Your task to perform on an android device: stop showing notifications on the lock screen Image 0: 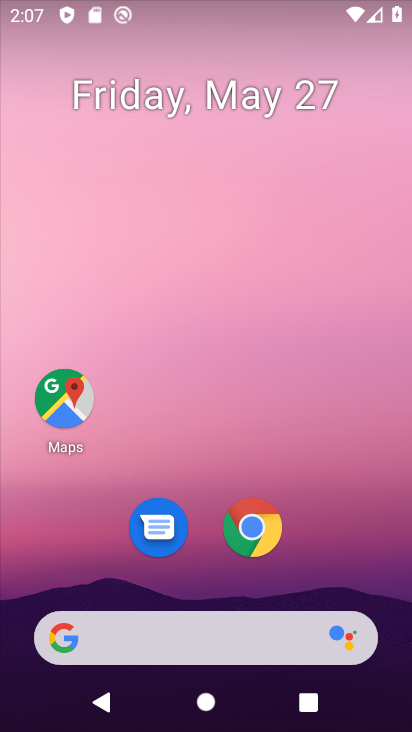
Step 0: press home button
Your task to perform on an android device: stop showing notifications on the lock screen Image 1: 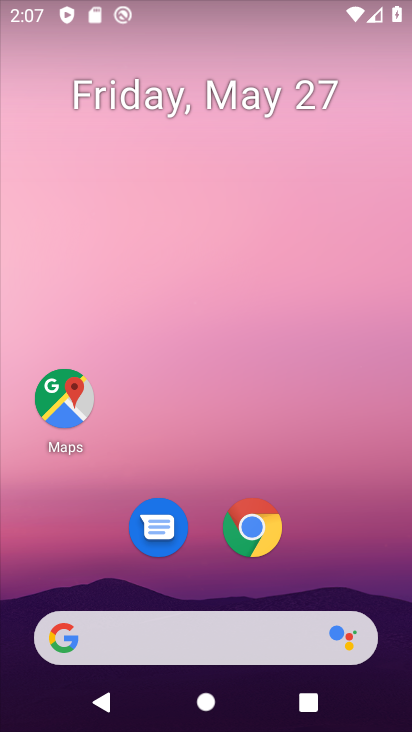
Step 1: drag from (195, 622) to (255, 209)
Your task to perform on an android device: stop showing notifications on the lock screen Image 2: 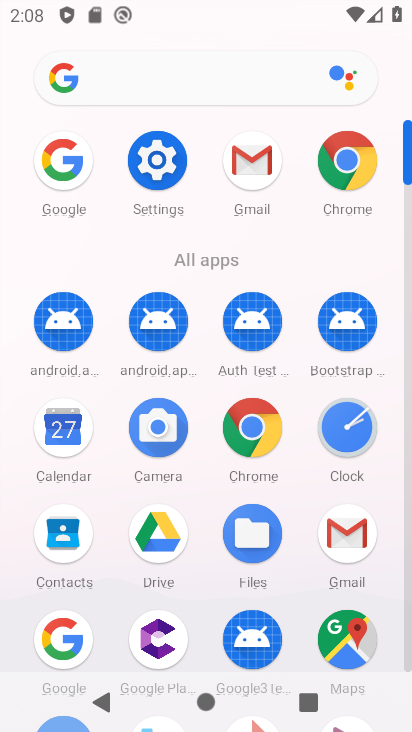
Step 2: click (151, 153)
Your task to perform on an android device: stop showing notifications on the lock screen Image 3: 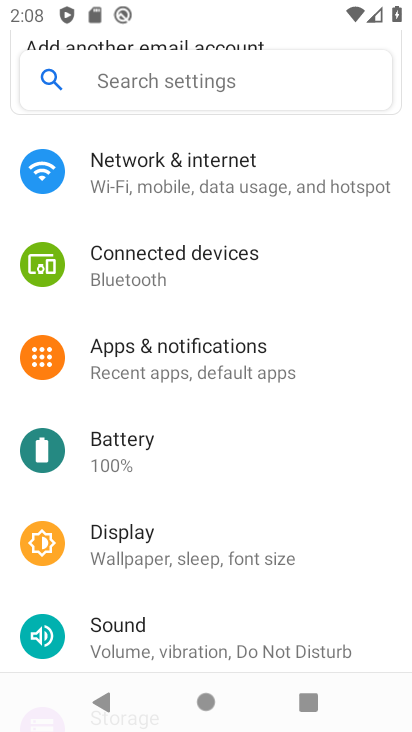
Step 3: drag from (154, 658) to (212, 191)
Your task to perform on an android device: stop showing notifications on the lock screen Image 4: 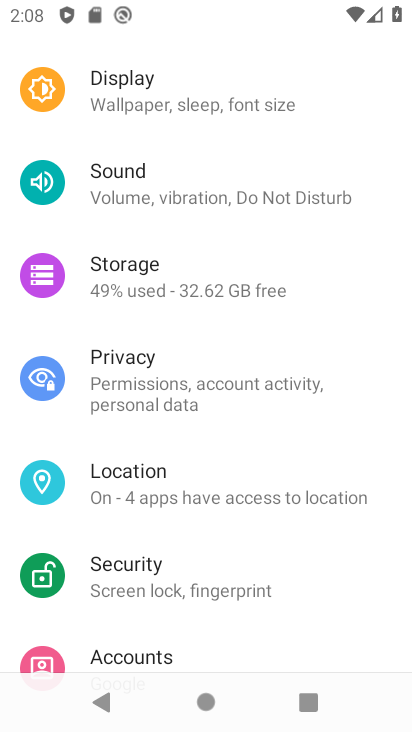
Step 4: click (150, 363)
Your task to perform on an android device: stop showing notifications on the lock screen Image 5: 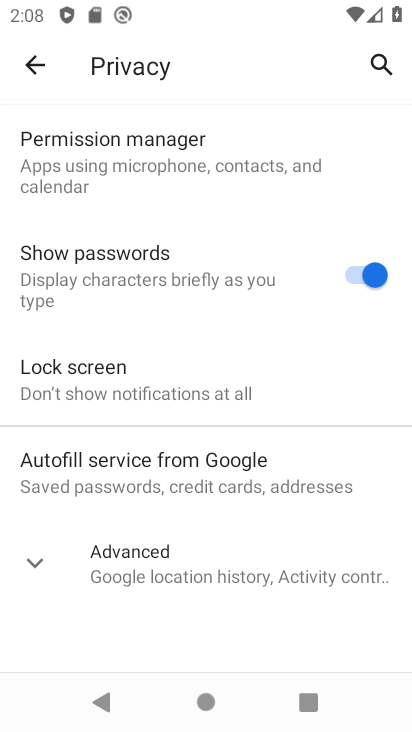
Step 5: click (129, 395)
Your task to perform on an android device: stop showing notifications on the lock screen Image 6: 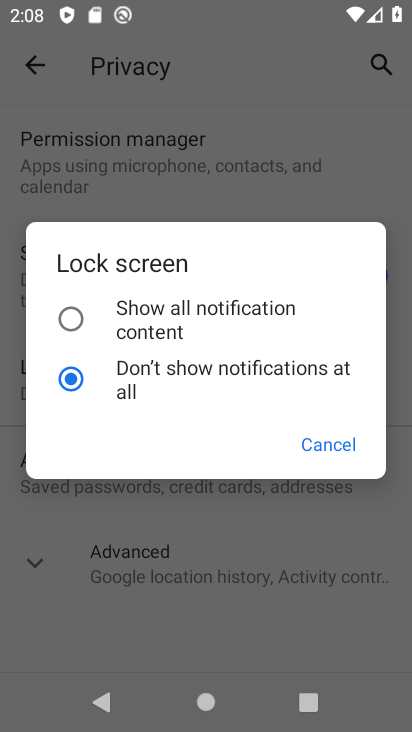
Step 6: task complete